Your task to perform on an android device: Search for pizza restaurants on Maps Image 0: 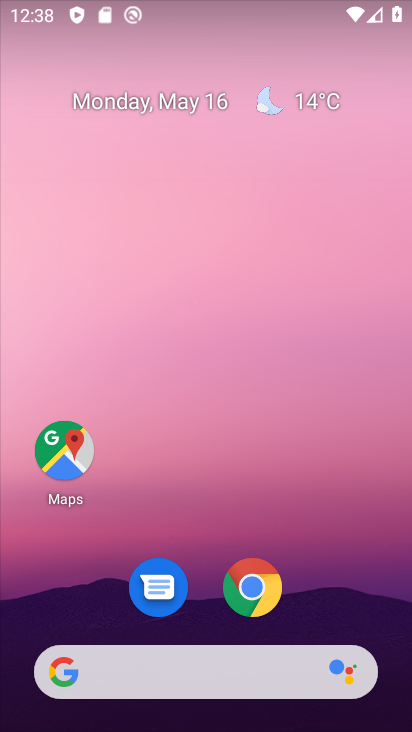
Step 0: drag from (218, 695) to (218, 194)
Your task to perform on an android device: Search for pizza restaurants on Maps Image 1: 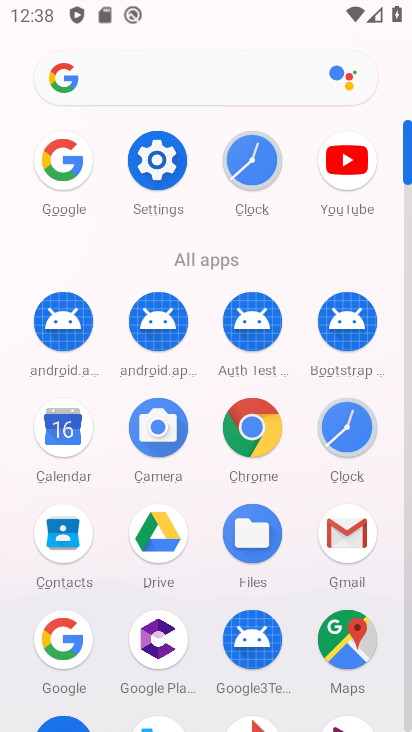
Step 1: click (345, 651)
Your task to perform on an android device: Search for pizza restaurants on Maps Image 2: 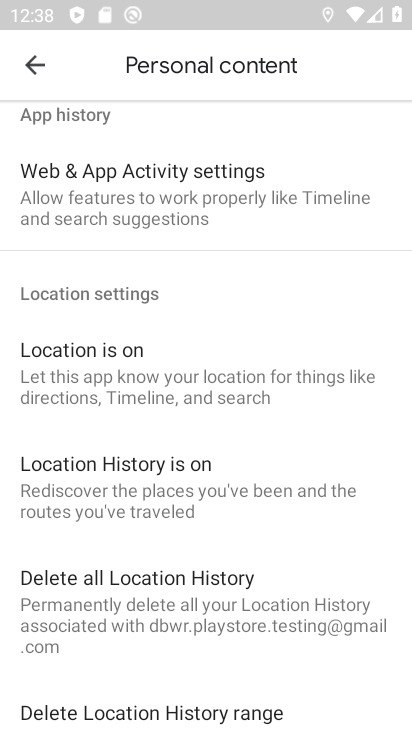
Step 2: click (28, 58)
Your task to perform on an android device: Search for pizza restaurants on Maps Image 3: 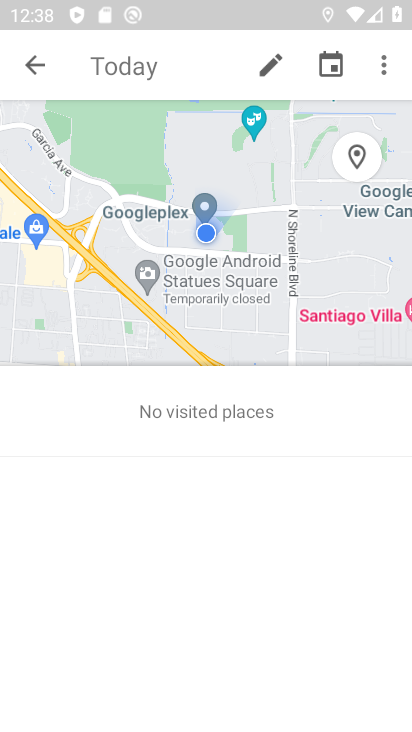
Step 3: click (35, 59)
Your task to perform on an android device: Search for pizza restaurants on Maps Image 4: 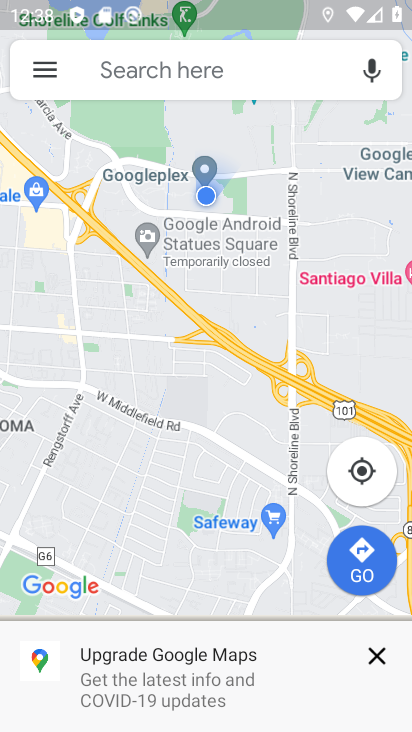
Step 4: click (192, 65)
Your task to perform on an android device: Search for pizza restaurants on Maps Image 5: 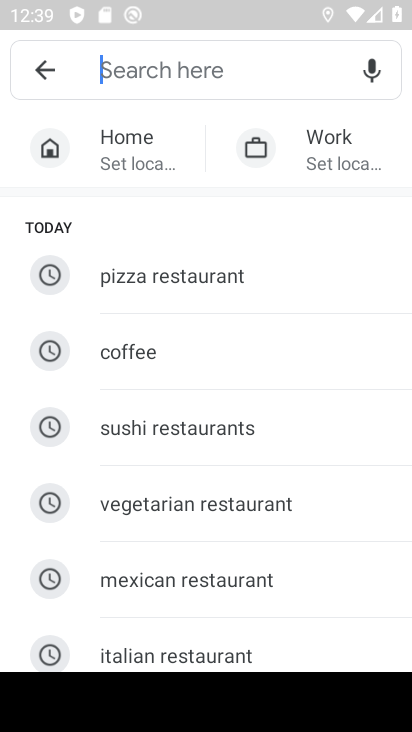
Step 5: type "Pizza restaurants"
Your task to perform on an android device: Search for pizza restaurants on Maps Image 6: 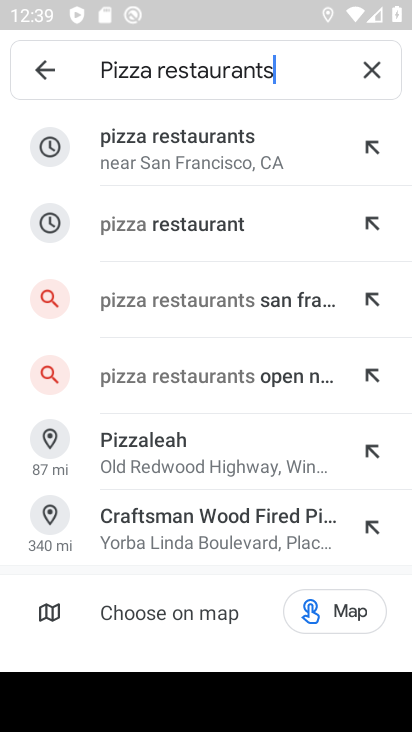
Step 6: click (193, 165)
Your task to perform on an android device: Search for pizza restaurants on Maps Image 7: 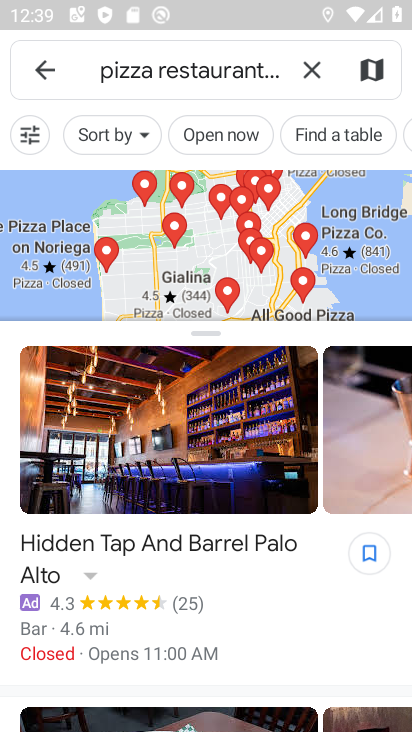
Step 7: task complete